Your task to perform on an android device: Open calendar and show me the first week of next month Image 0: 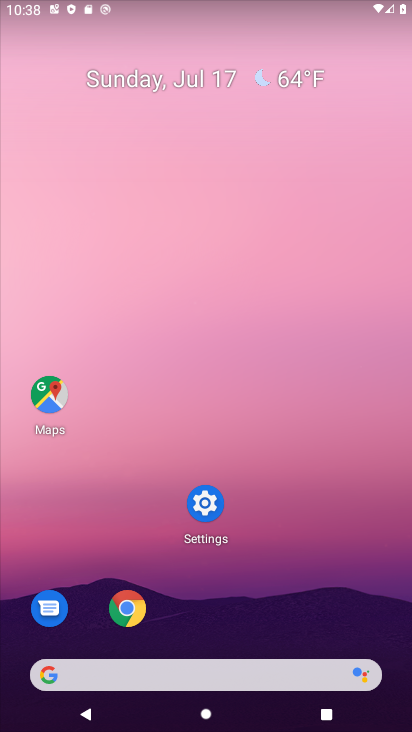
Step 0: drag from (384, 708) to (266, 33)
Your task to perform on an android device: Open calendar and show me the first week of next month Image 1: 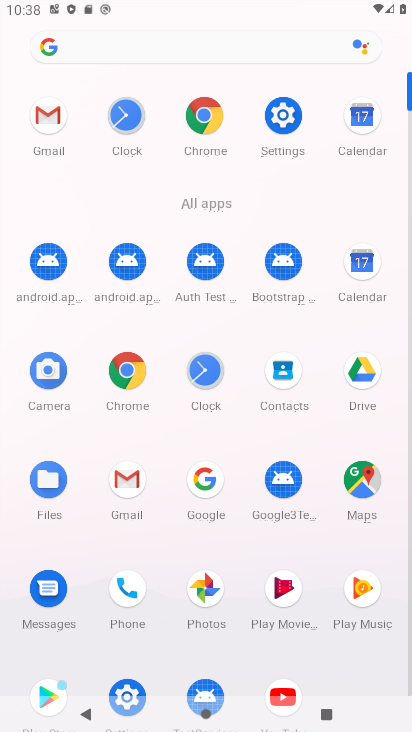
Step 1: click (363, 275)
Your task to perform on an android device: Open calendar and show me the first week of next month Image 2: 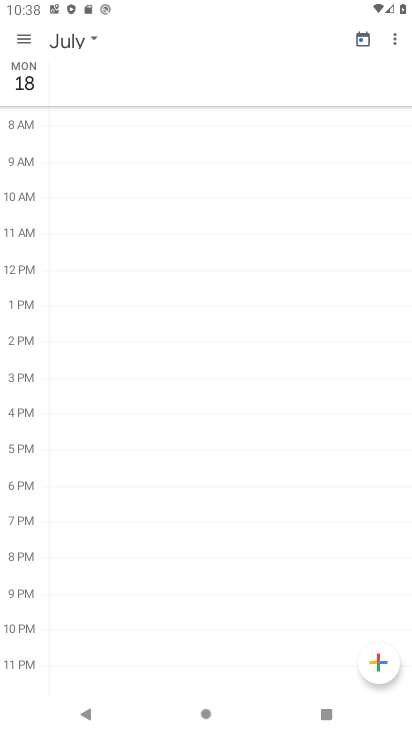
Step 2: click (89, 41)
Your task to perform on an android device: Open calendar and show me the first week of next month Image 3: 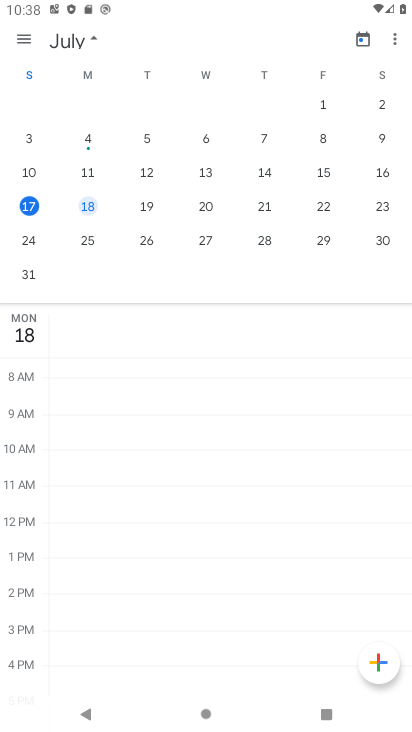
Step 3: drag from (350, 191) to (44, 98)
Your task to perform on an android device: Open calendar and show me the first week of next month Image 4: 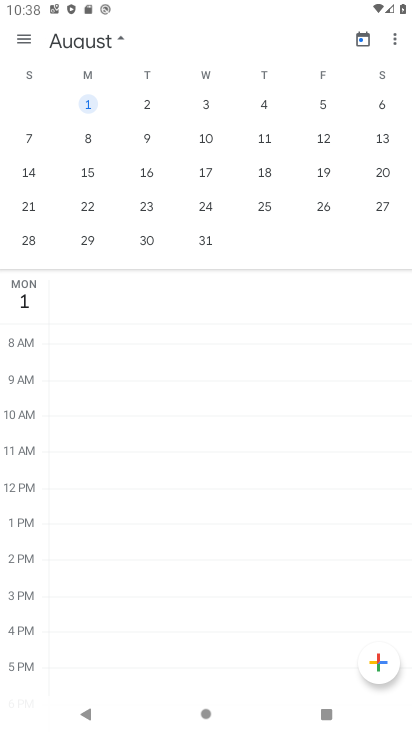
Step 4: click (206, 103)
Your task to perform on an android device: Open calendar and show me the first week of next month Image 5: 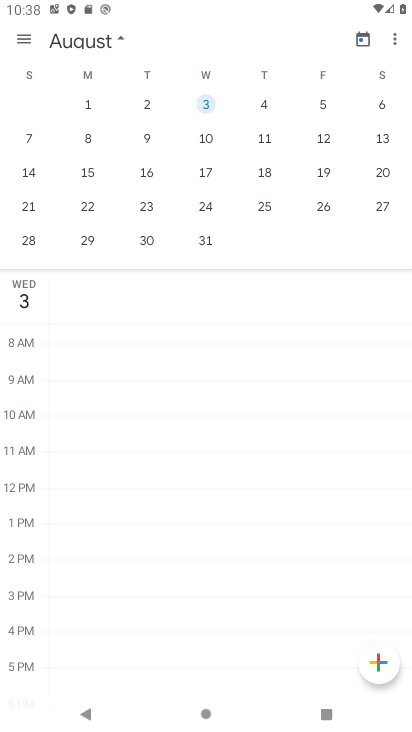
Step 5: click (23, 38)
Your task to perform on an android device: Open calendar and show me the first week of next month Image 6: 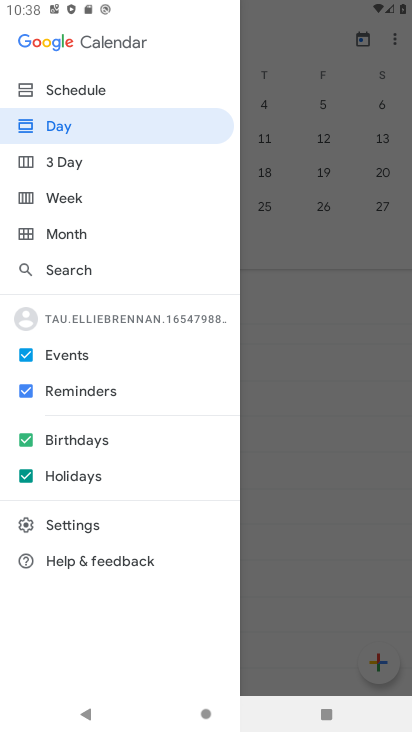
Step 6: click (56, 191)
Your task to perform on an android device: Open calendar and show me the first week of next month Image 7: 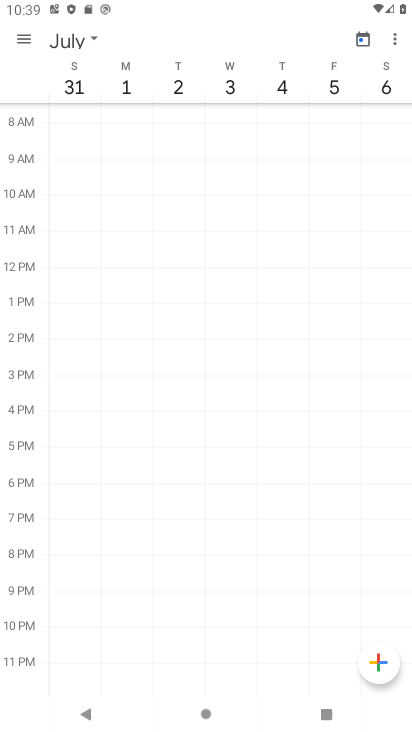
Step 7: task complete